Your task to perform on an android device: turn off javascript in the chrome app Image 0: 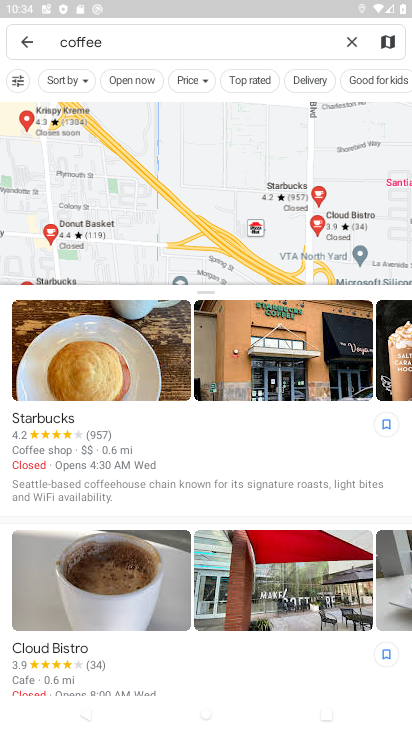
Step 0: press home button
Your task to perform on an android device: turn off javascript in the chrome app Image 1: 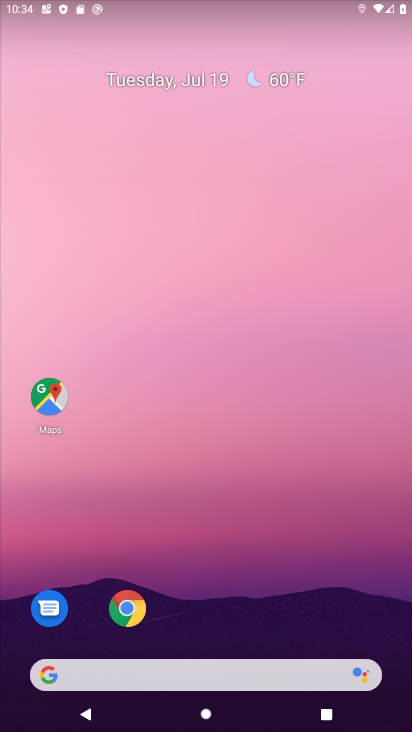
Step 1: click (126, 607)
Your task to perform on an android device: turn off javascript in the chrome app Image 2: 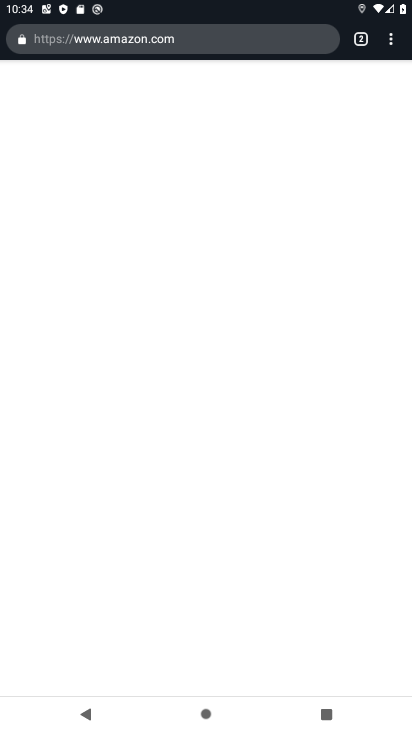
Step 2: click (386, 38)
Your task to perform on an android device: turn off javascript in the chrome app Image 3: 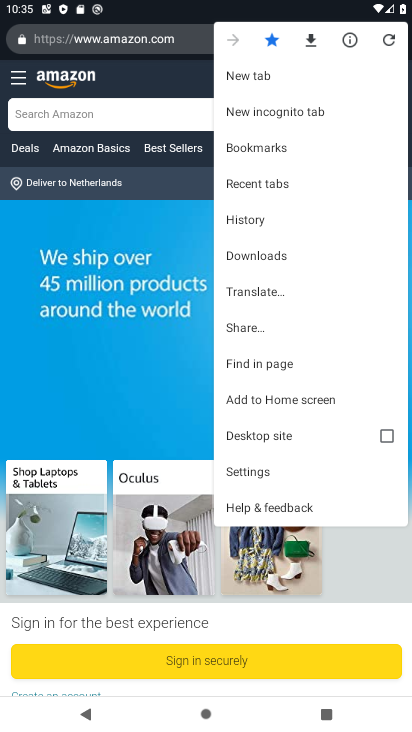
Step 3: click (258, 468)
Your task to perform on an android device: turn off javascript in the chrome app Image 4: 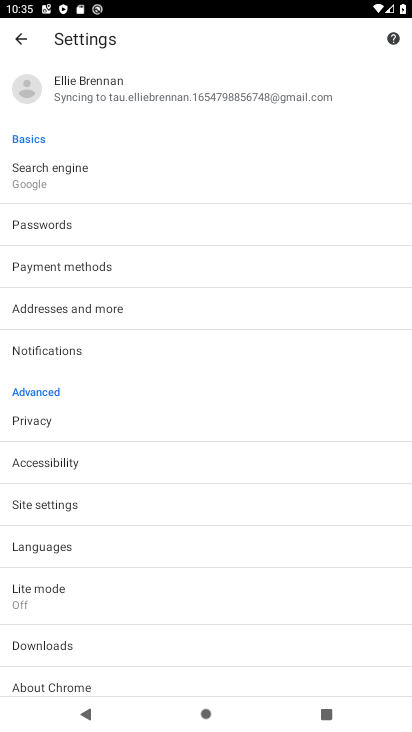
Step 4: click (46, 507)
Your task to perform on an android device: turn off javascript in the chrome app Image 5: 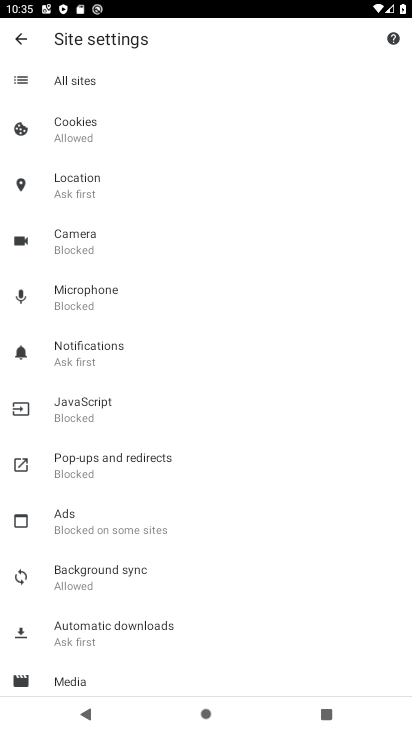
Step 5: click (97, 418)
Your task to perform on an android device: turn off javascript in the chrome app Image 6: 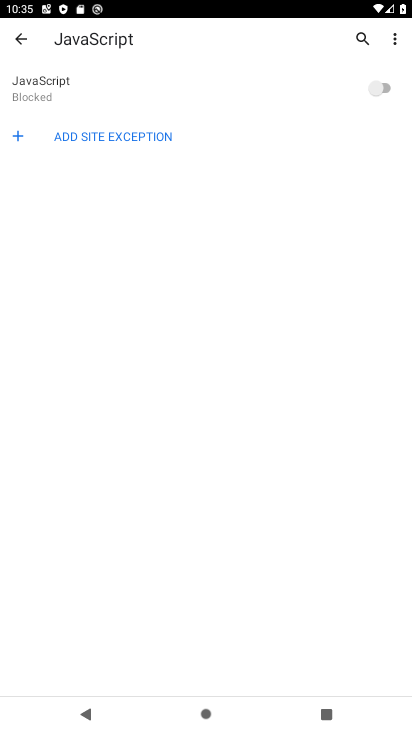
Step 6: task complete